Your task to perform on an android device: toggle data saver in the chrome app Image 0: 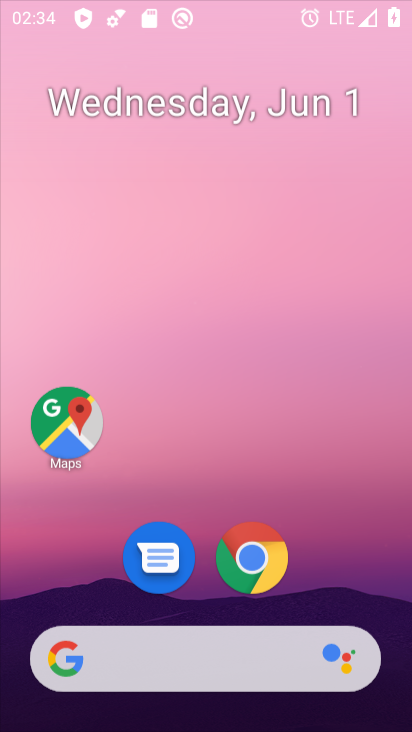
Step 0: press home button
Your task to perform on an android device: toggle data saver in the chrome app Image 1: 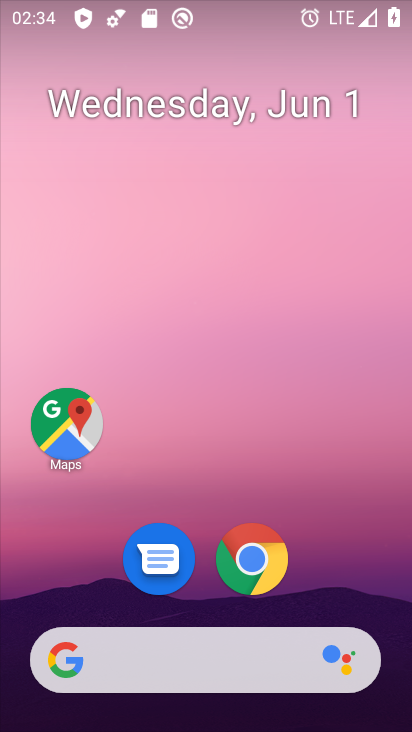
Step 1: click (251, 554)
Your task to perform on an android device: toggle data saver in the chrome app Image 2: 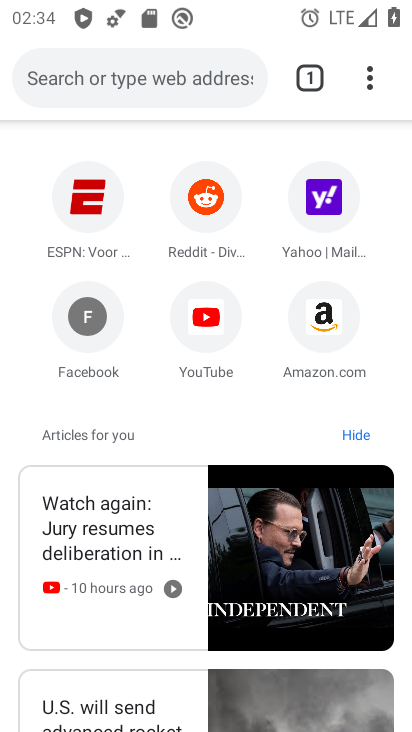
Step 2: drag from (371, 72) to (64, 649)
Your task to perform on an android device: toggle data saver in the chrome app Image 3: 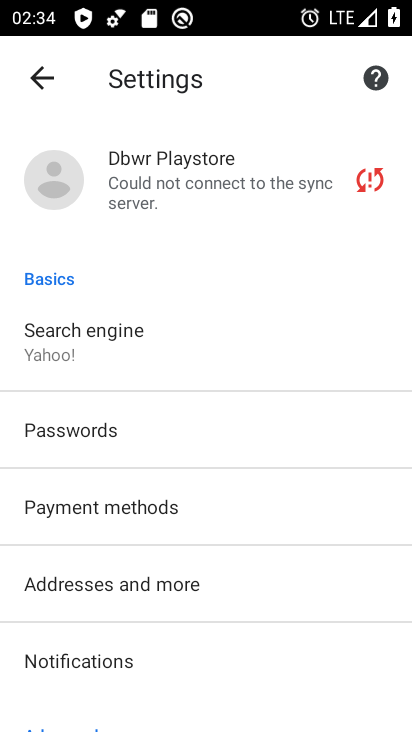
Step 3: drag from (244, 648) to (292, 240)
Your task to perform on an android device: toggle data saver in the chrome app Image 4: 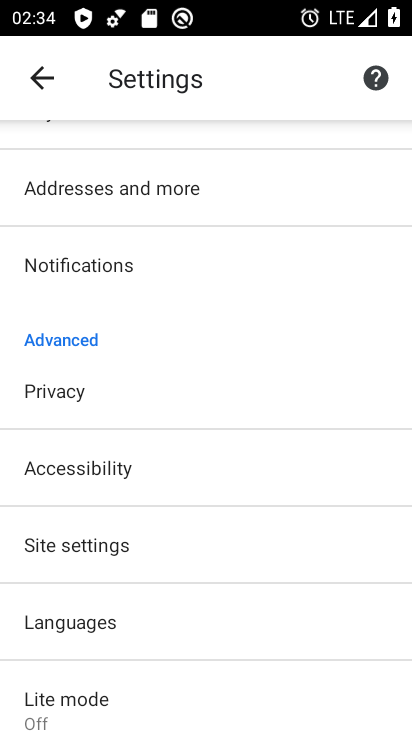
Step 4: click (59, 704)
Your task to perform on an android device: toggle data saver in the chrome app Image 5: 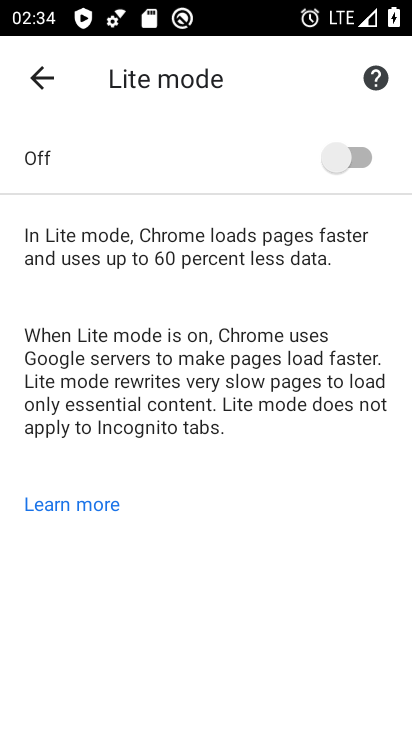
Step 5: click (337, 152)
Your task to perform on an android device: toggle data saver in the chrome app Image 6: 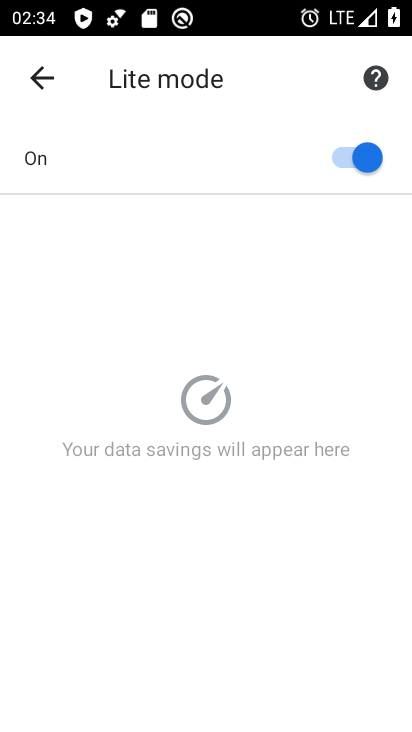
Step 6: task complete